Your task to perform on an android device: Open calendar and show me the fourth week of next month Image 0: 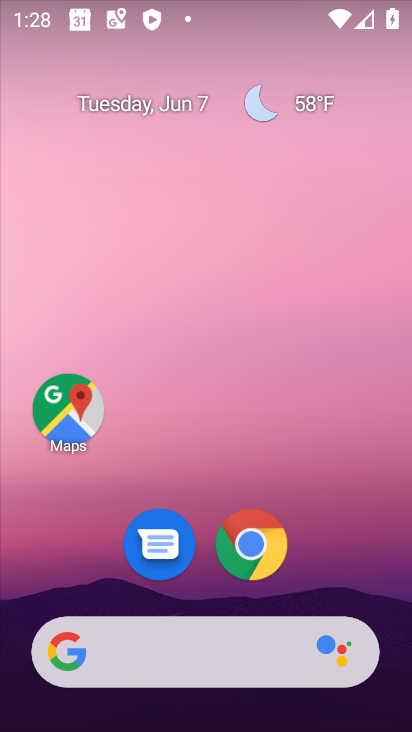
Step 0: drag from (216, 666) to (243, 2)
Your task to perform on an android device: Open calendar and show me the fourth week of next month Image 1: 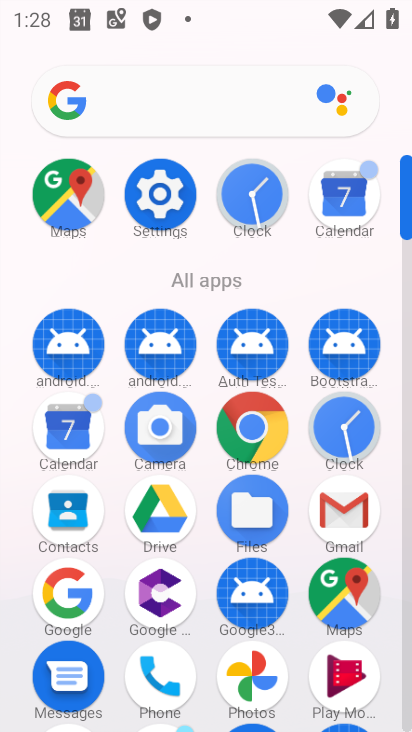
Step 1: click (76, 442)
Your task to perform on an android device: Open calendar and show me the fourth week of next month Image 2: 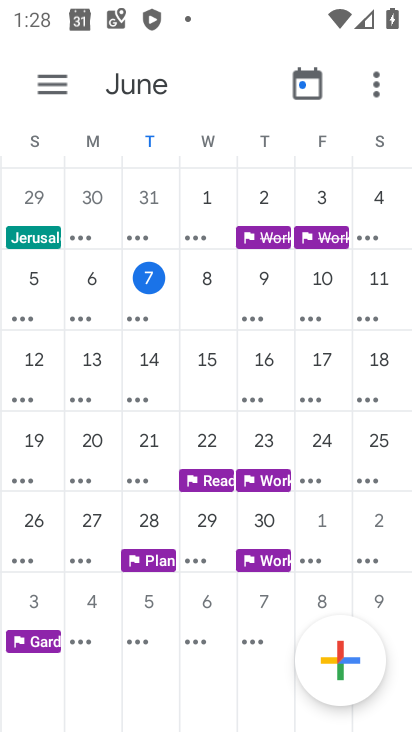
Step 2: task complete